Your task to perform on an android device: delete browsing data in the chrome app Image 0: 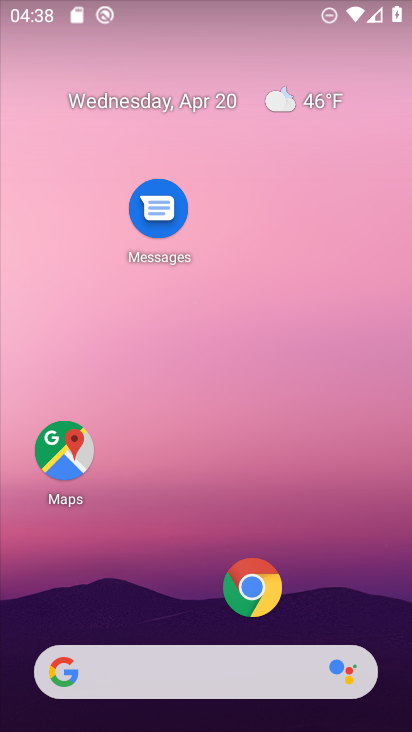
Step 0: click (248, 595)
Your task to perform on an android device: delete browsing data in the chrome app Image 1: 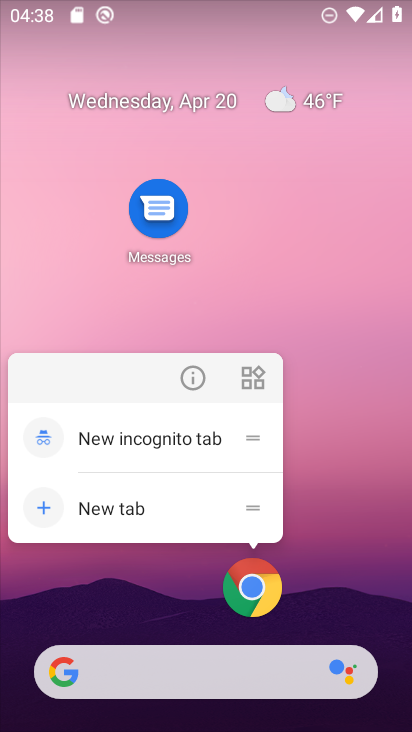
Step 1: click (249, 597)
Your task to perform on an android device: delete browsing data in the chrome app Image 2: 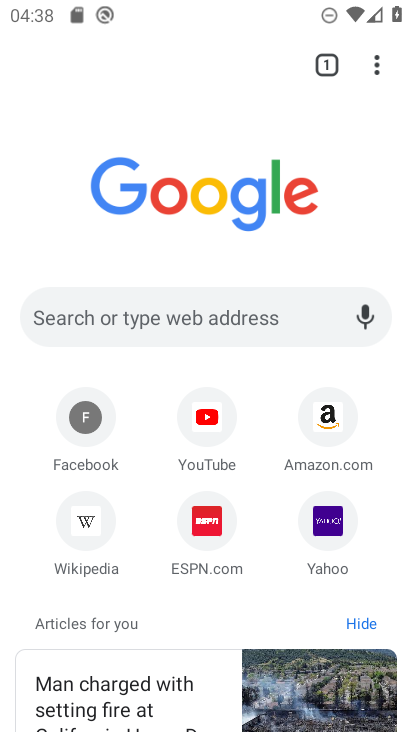
Step 2: click (371, 65)
Your task to perform on an android device: delete browsing data in the chrome app Image 3: 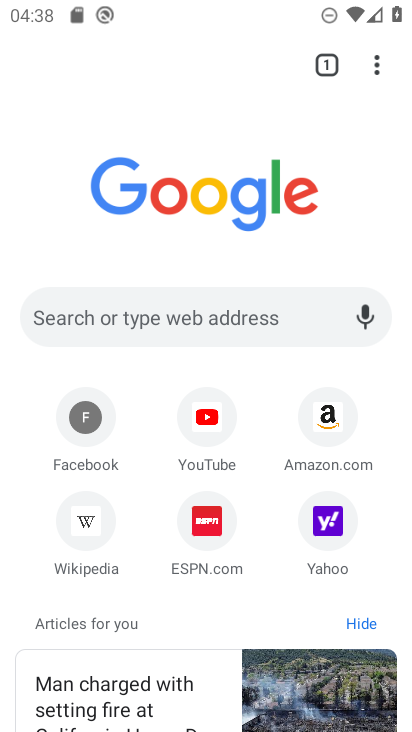
Step 3: click (379, 57)
Your task to perform on an android device: delete browsing data in the chrome app Image 4: 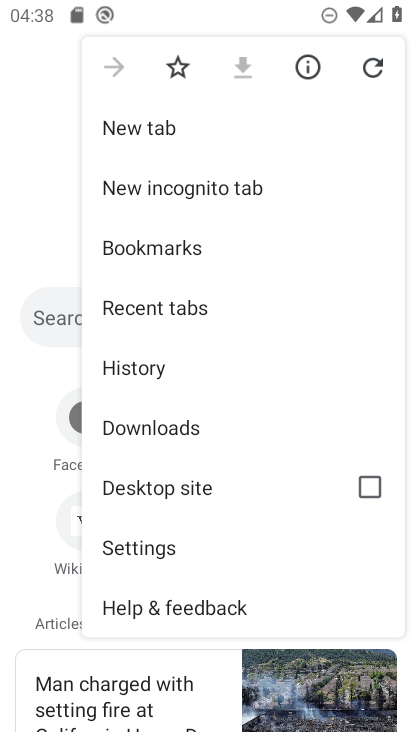
Step 4: click (160, 547)
Your task to perform on an android device: delete browsing data in the chrome app Image 5: 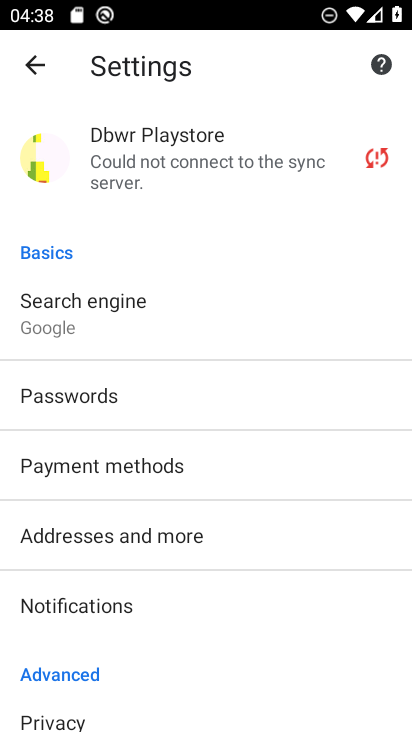
Step 5: drag from (146, 612) to (184, 348)
Your task to perform on an android device: delete browsing data in the chrome app Image 6: 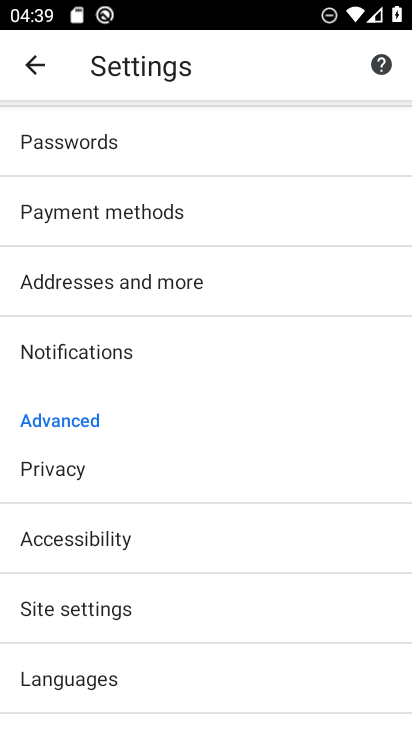
Step 6: drag from (147, 283) to (152, 602)
Your task to perform on an android device: delete browsing data in the chrome app Image 7: 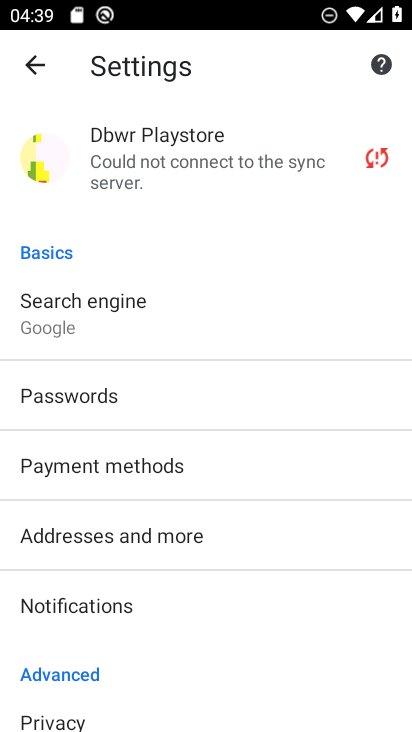
Step 7: click (32, 58)
Your task to perform on an android device: delete browsing data in the chrome app Image 8: 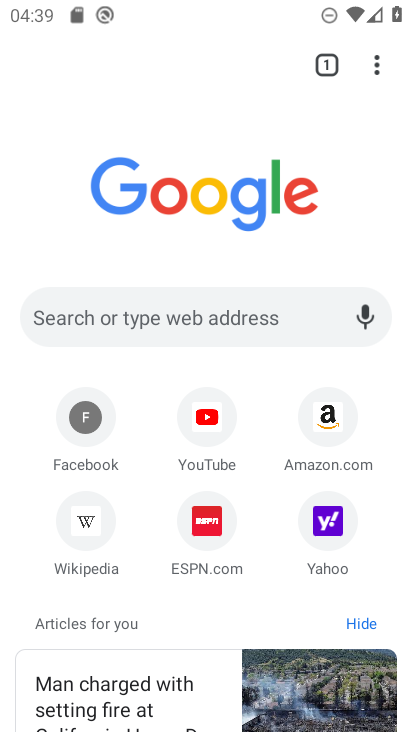
Step 8: click (373, 67)
Your task to perform on an android device: delete browsing data in the chrome app Image 9: 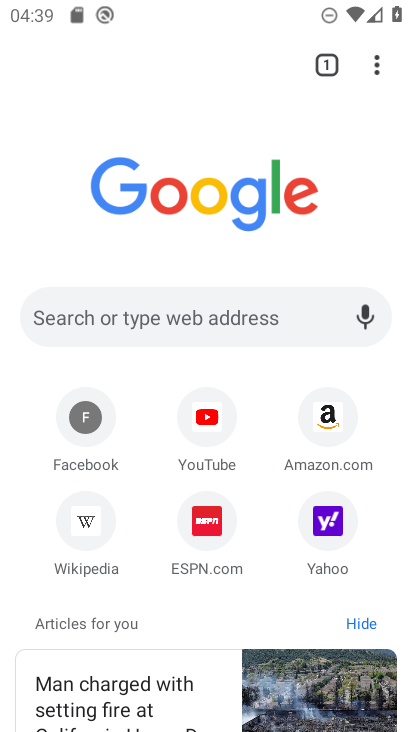
Step 9: click (374, 66)
Your task to perform on an android device: delete browsing data in the chrome app Image 10: 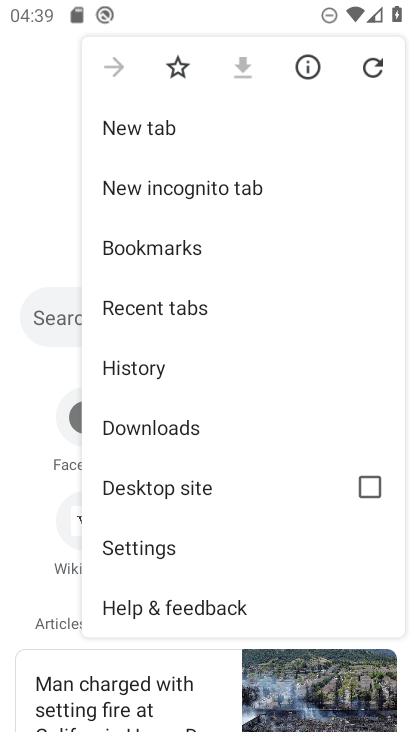
Step 10: click (135, 365)
Your task to perform on an android device: delete browsing data in the chrome app Image 11: 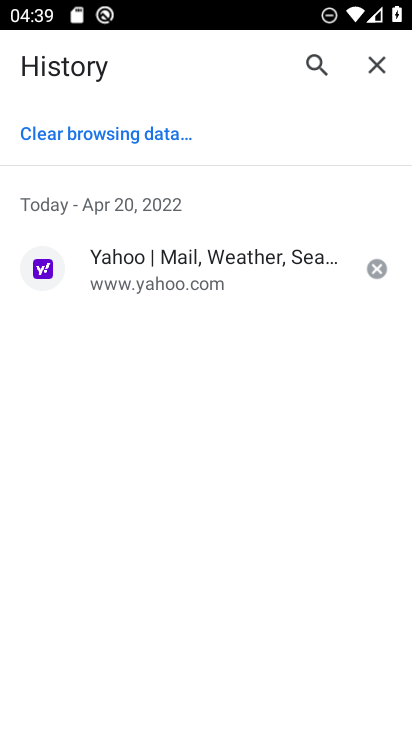
Step 11: click (114, 130)
Your task to perform on an android device: delete browsing data in the chrome app Image 12: 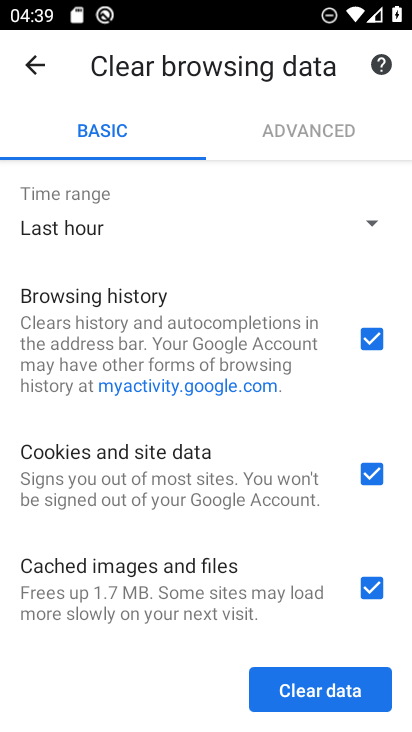
Step 12: drag from (213, 581) to (222, 252)
Your task to perform on an android device: delete browsing data in the chrome app Image 13: 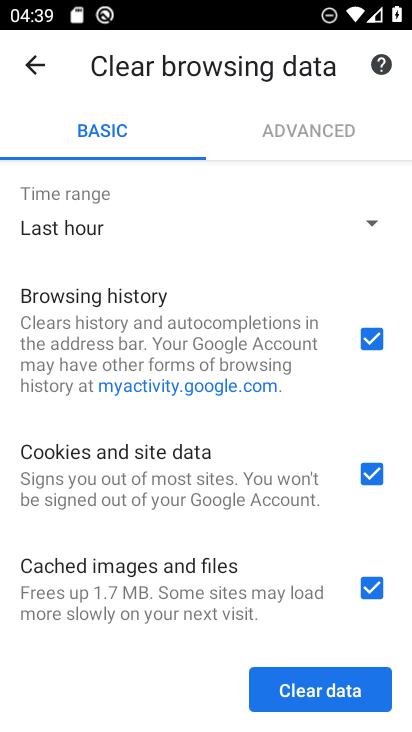
Step 13: click (283, 697)
Your task to perform on an android device: delete browsing data in the chrome app Image 14: 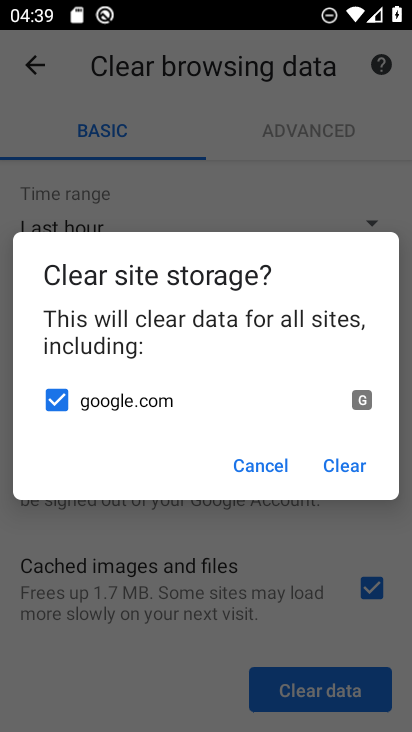
Step 14: click (336, 460)
Your task to perform on an android device: delete browsing data in the chrome app Image 15: 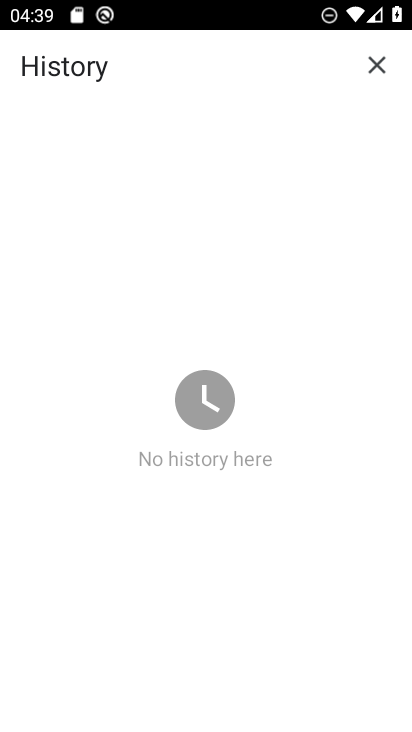
Step 15: task complete